Your task to perform on an android device: turn pop-ups on in chrome Image 0: 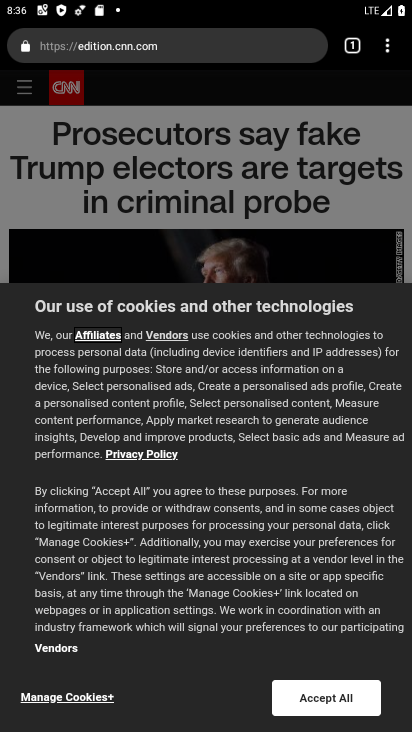
Step 0: click (384, 53)
Your task to perform on an android device: turn pop-ups on in chrome Image 1: 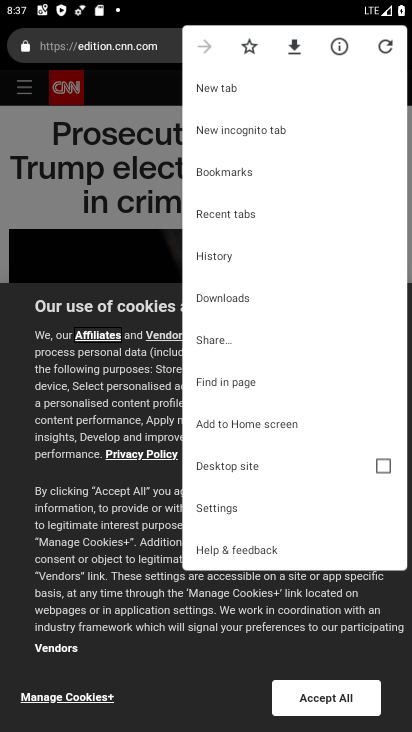
Step 1: click (213, 510)
Your task to perform on an android device: turn pop-ups on in chrome Image 2: 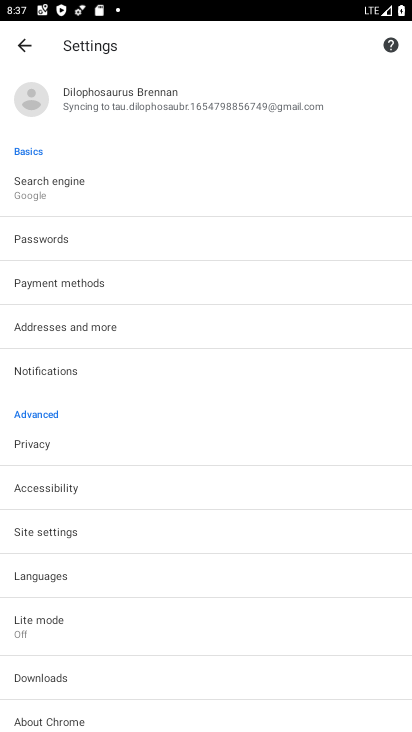
Step 2: click (49, 542)
Your task to perform on an android device: turn pop-ups on in chrome Image 3: 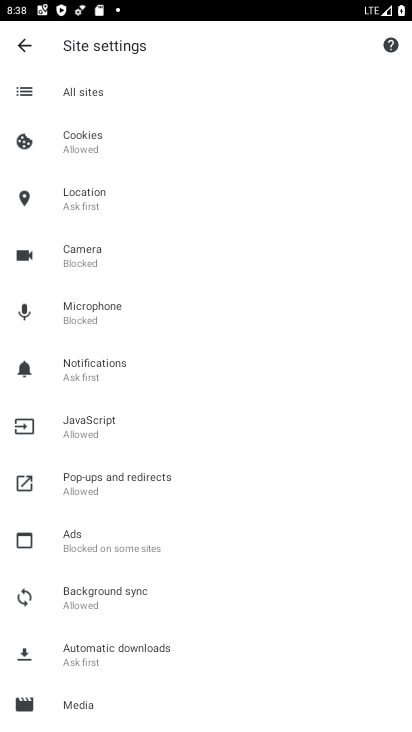
Step 3: click (132, 490)
Your task to perform on an android device: turn pop-ups on in chrome Image 4: 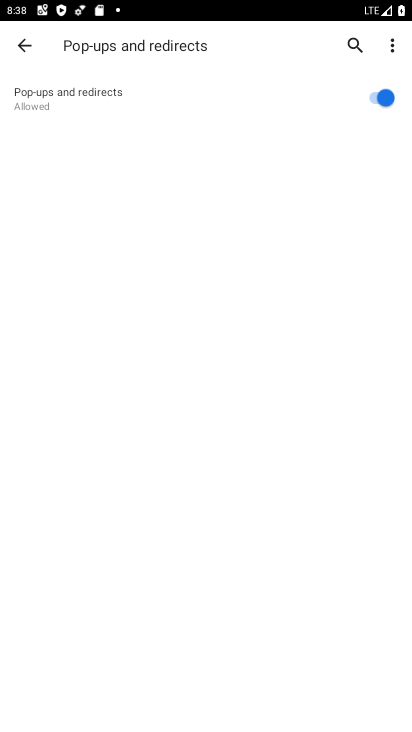
Step 4: task complete